Your task to perform on an android device: turn off sleep mode Image 0: 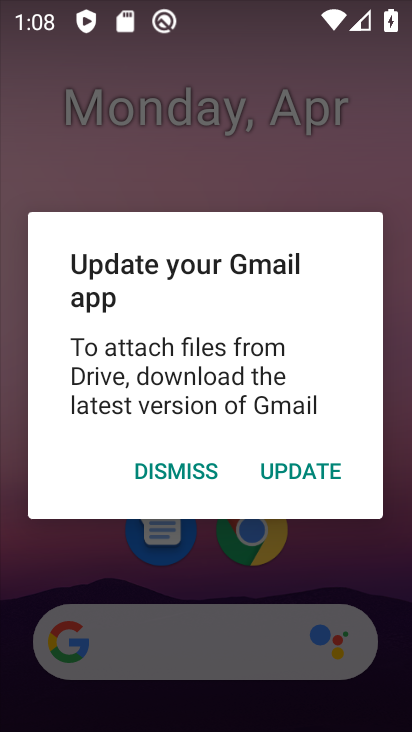
Step 0: press home button
Your task to perform on an android device: turn off sleep mode Image 1: 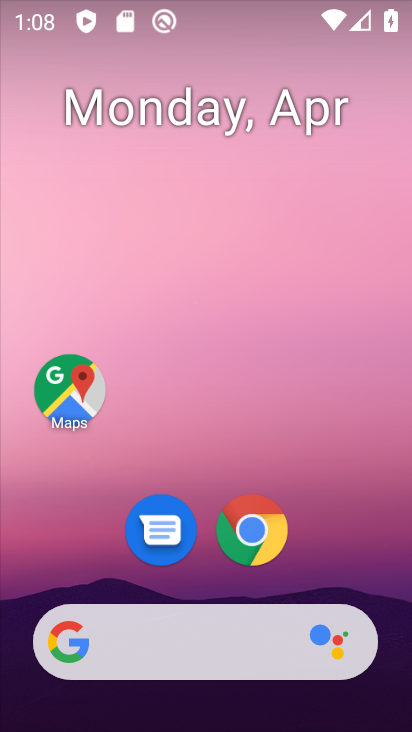
Step 1: drag from (336, 563) to (279, 69)
Your task to perform on an android device: turn off sleep mode Image 2: 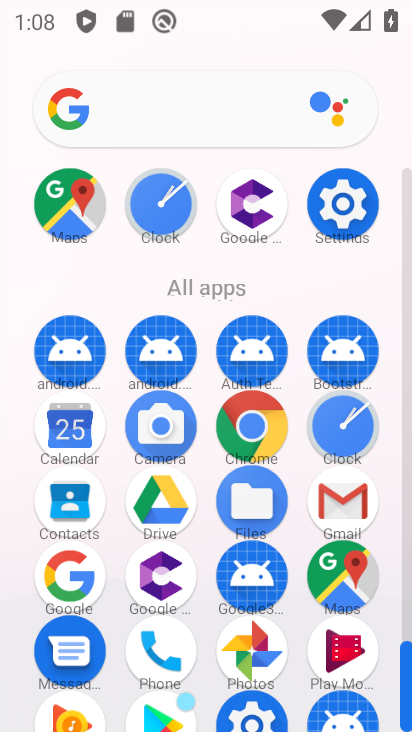
Step 2: click (339, 201)
Your task to perform on an android device: turn off sleep mode Image 3: 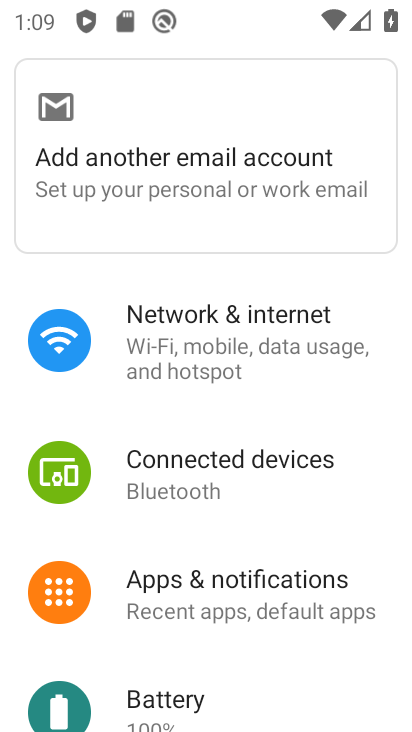
Step 3: drag from (224, 546) to (172, 171)
Your task to perform on an android device: turn off sleep mode Image 4: 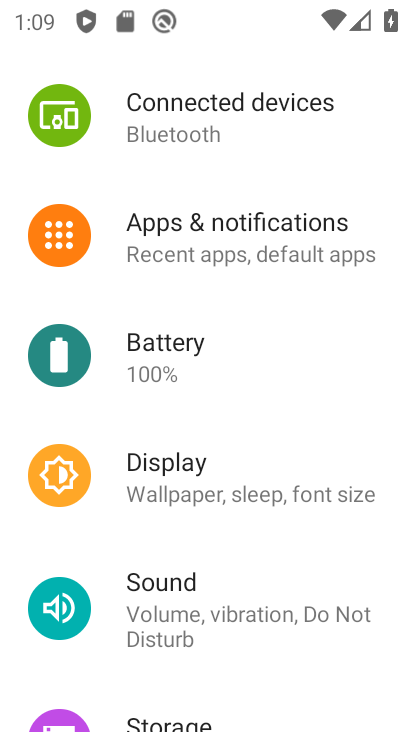
Step 4: click (185, 482)
Your task to perform on an android device: turn off sleep mode Image 5: 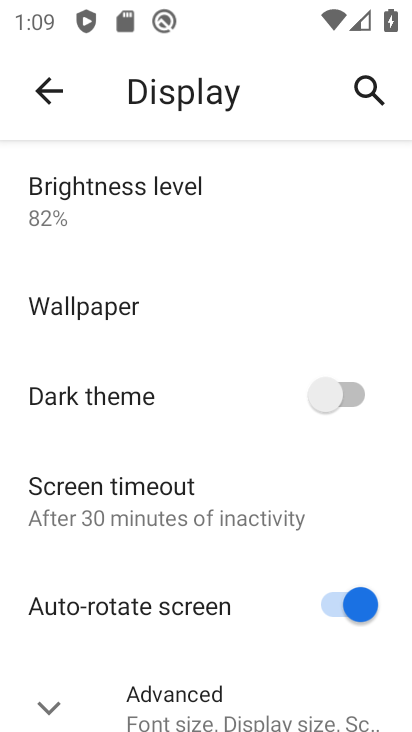
Step 5: task complete